Your task to perform on an android device: turn on location history Image 0: 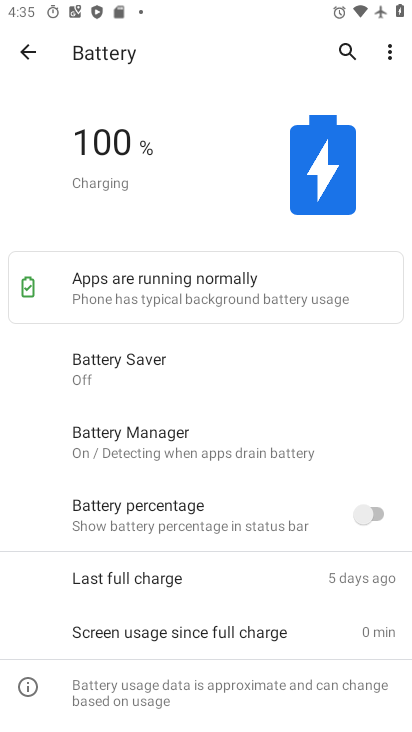
Step 0: press back button
Your task to perform on an android device: turn on location history Image 1: 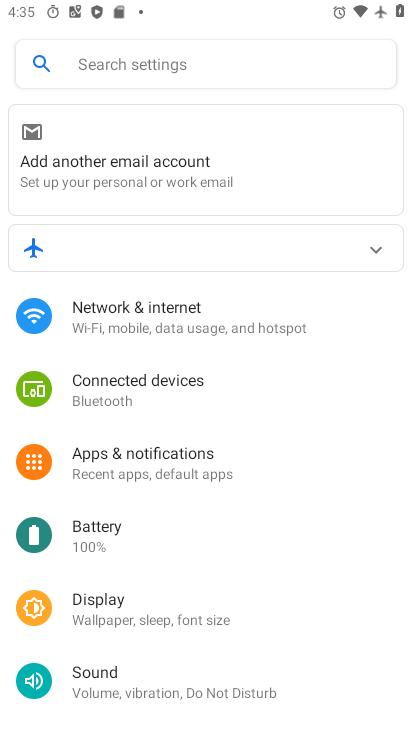
Step 1: press home button
Your task to perform on an android device: turn on location history Image 2: 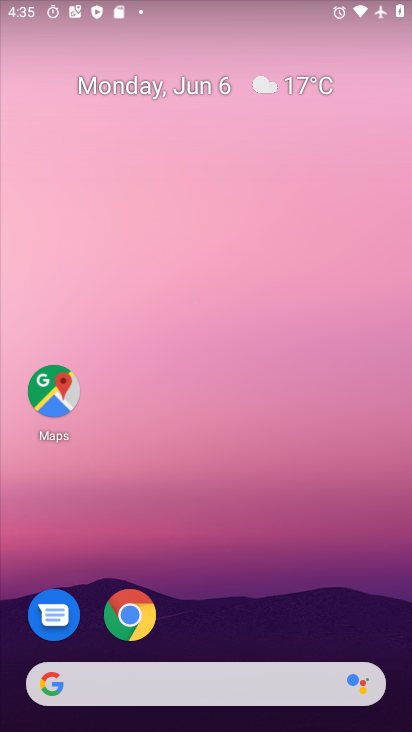
Step 2: drag from (250, 584) to (240, 7)
Your task to perform on an android device: turn on location history Image 3: 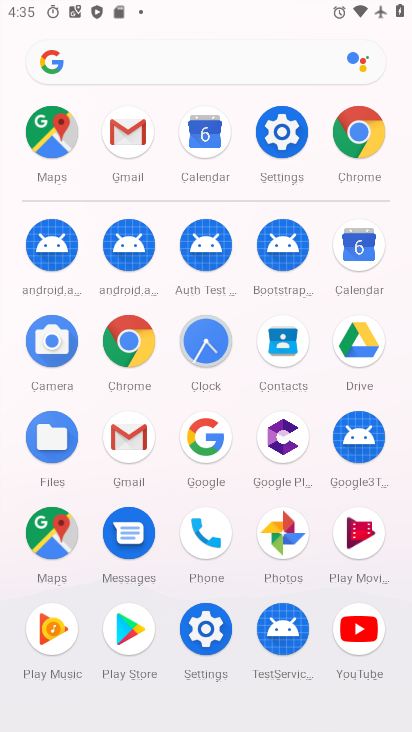
Step 3: drag from (1, 583) to (29, 260)
Your task to perform on an android device: turn on location history Image 4: 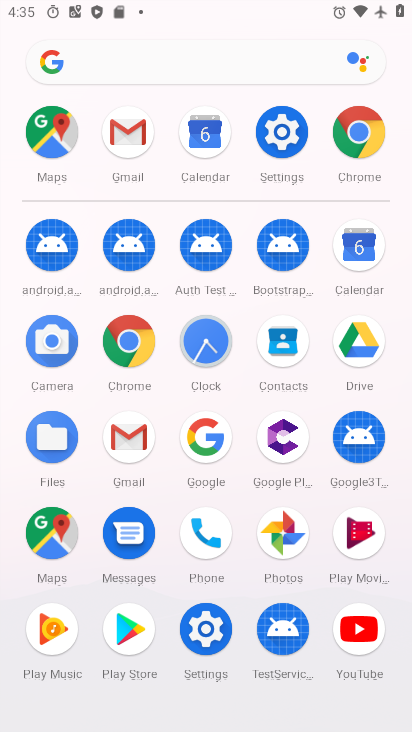
Step 4: click (206, 626)
Your task to perform on an android device: turn on location history Image 5: 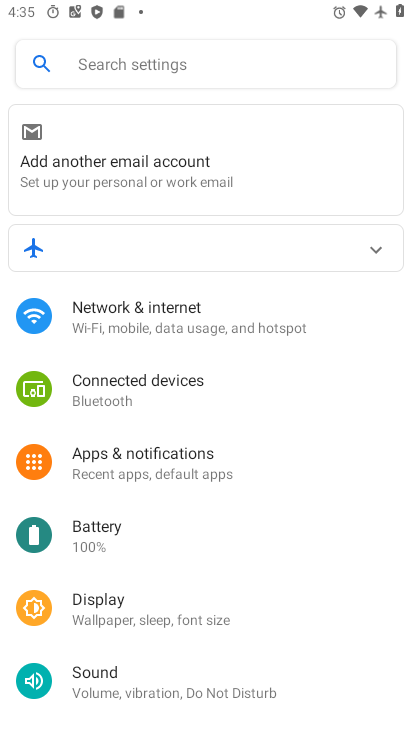
Step 5: drag from (244, 591) to (313, 258)
Your task to perform on an android device: turn on location history Image 6: 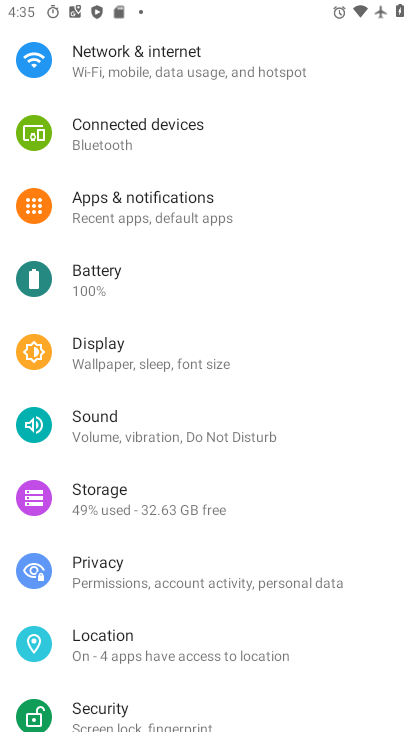
Step 6: click (133, 642)
Your task to perform on an android device: turn on location history Image 7: 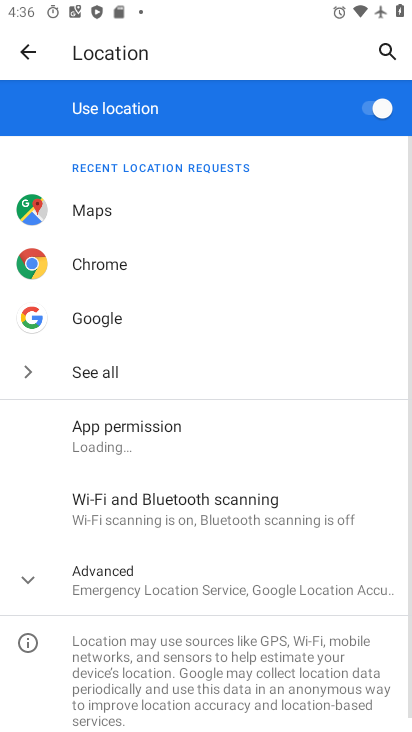
Step 7: click (43, 571)
Your task to perform on an android device: turn on location history Image 8: 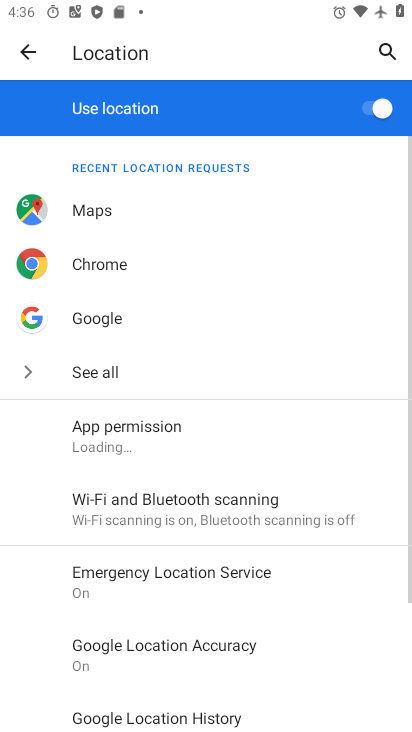
Step 8: drag from (295, 578) to (340, 277)
Your task to perform on an android device: turn on location history Image 9: 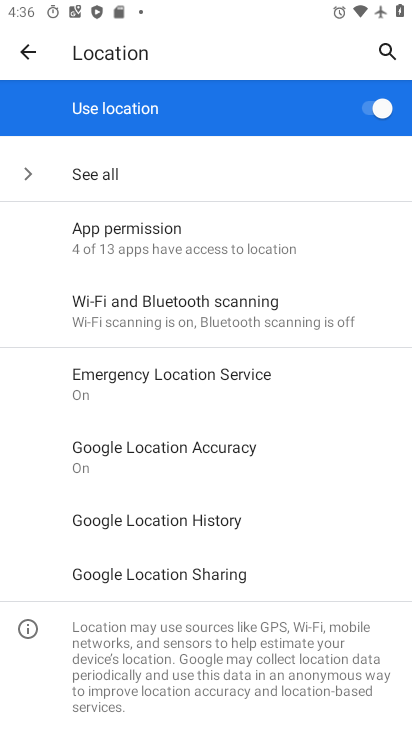
Step 9: click (209, 522)
Your task to perform on an android device: turn on location history Image 10: 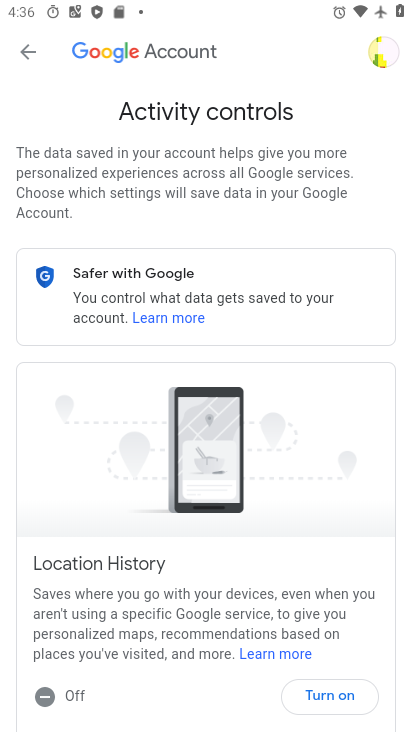
Step 10: drag from (239, 543) to (300, 240)
Your task to perform on an android device: turn on location history Image 11: 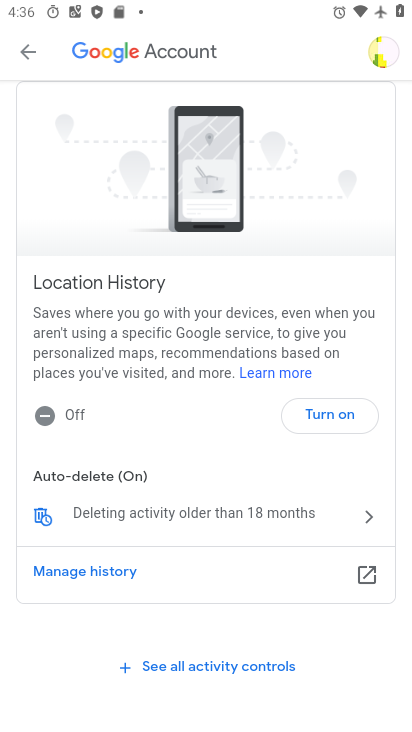
Step 11: click (327, 415)
Your task to perform on an android device: turn on location history Image 12: 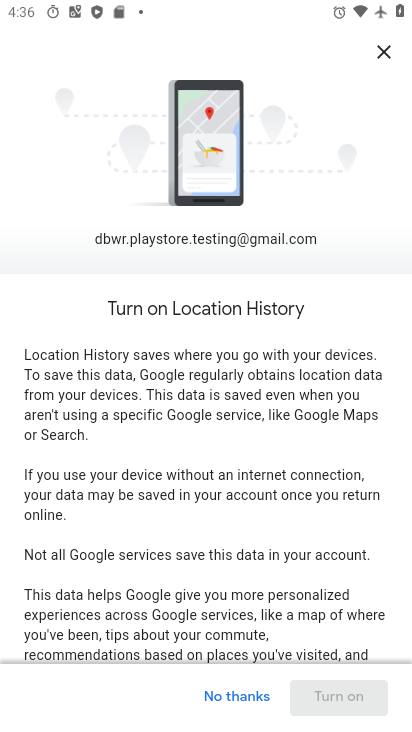
Step 12: drag from (204, 558) to (323, 143)
Your task to perform on an android device: turn on location history Image 13: 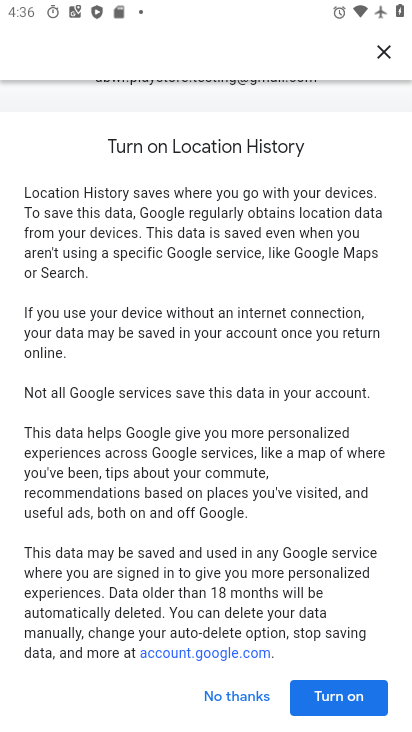
Step 13: click (318, 691)
Your task to perform on an android device: turn on location history Image 14: 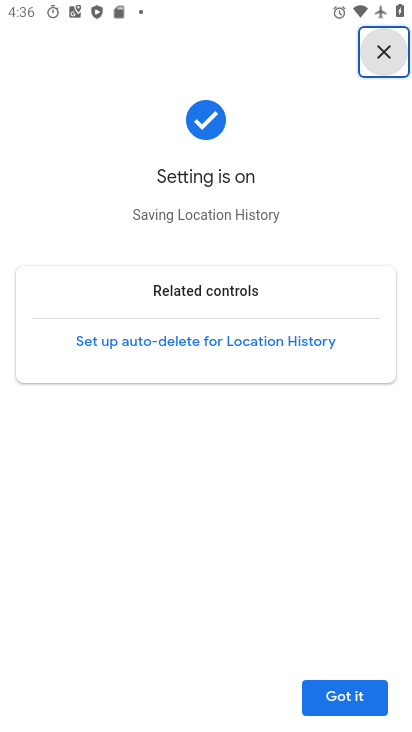
Step 14: task complete